Your task to perform on an android device: What's the weather? Image 0: 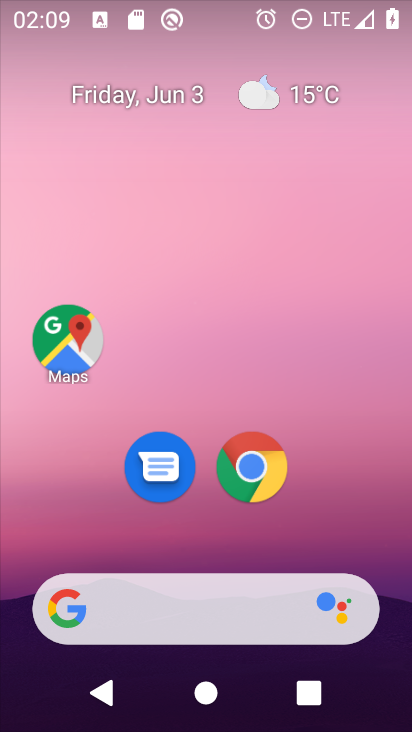
Step 0: click (308, 89)
Your task to perform on an android device: What's the weather? Image 1: 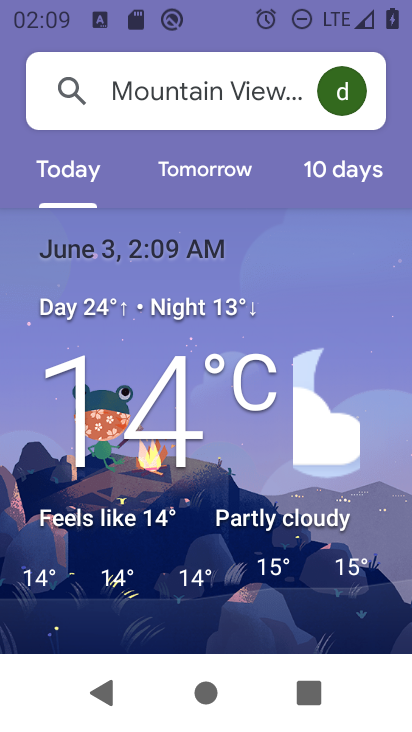
Step 1: task complete